Your task to perform on an android device: What is the news today? Image 0: 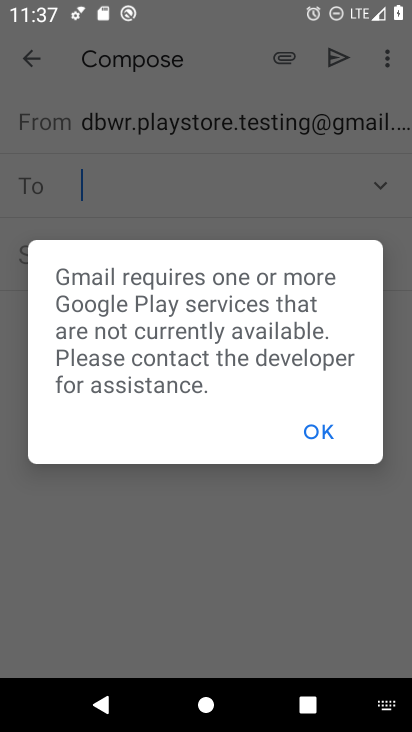
Step 0: drag from (205, 545) to (199, 171)
Your task to perform on an android device: What is the news today? Image 1: 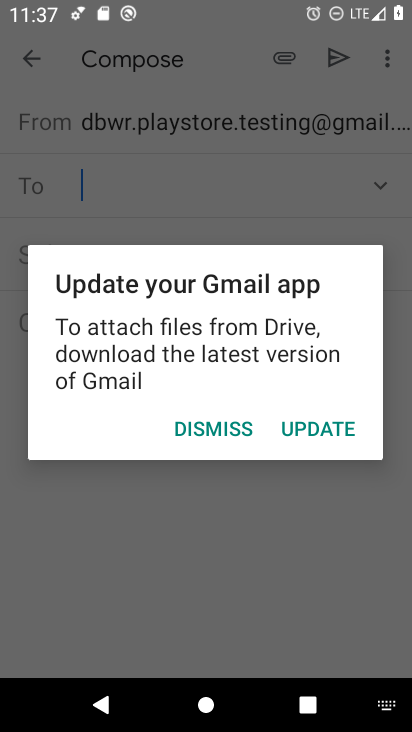
Step 1: press back button
Your task to perform on an android device: What is the news today? Image 2: 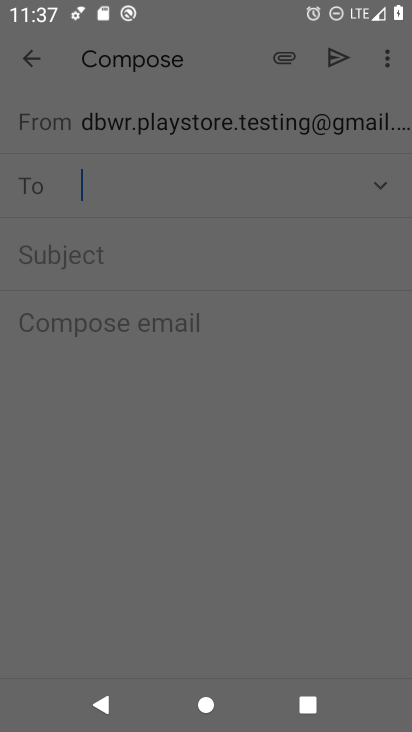
Step 2: press back button
Your task to perform on an android device: What is the news today? Image 3: 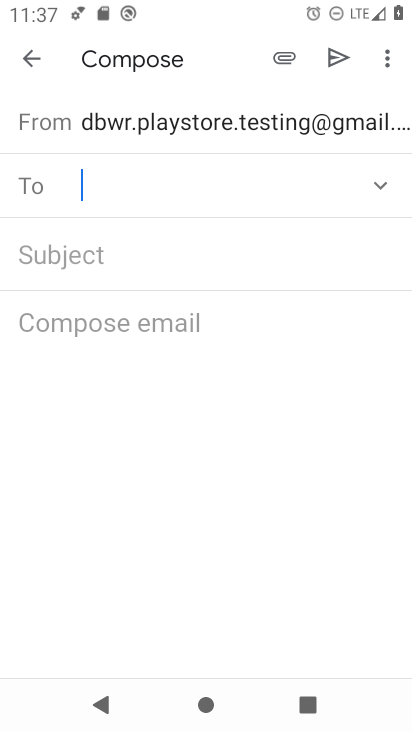
Step 3: press home button
Your task to perform on an android device: What is the news today? Image 4: 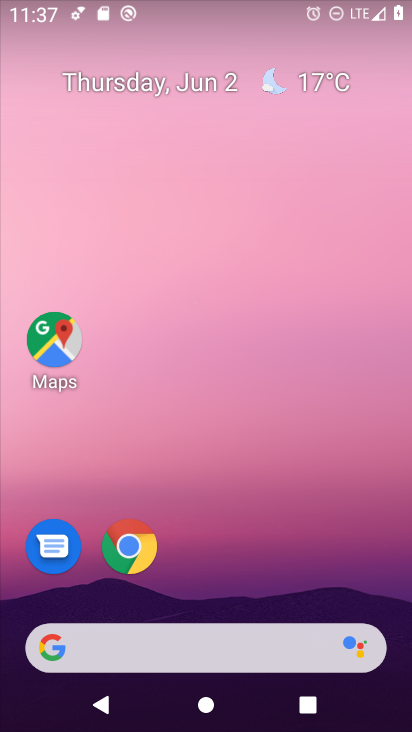
Step 4: drag from (239, 531) to (227, 34)
Your task to perform on an android device: What is the news today? Image 5: 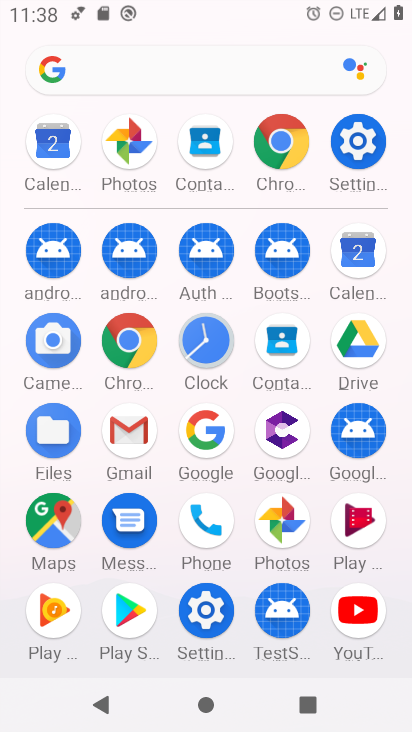
Step 5: click (132, 333)
Your task to perform on an android device: What is the news today? Image 6: 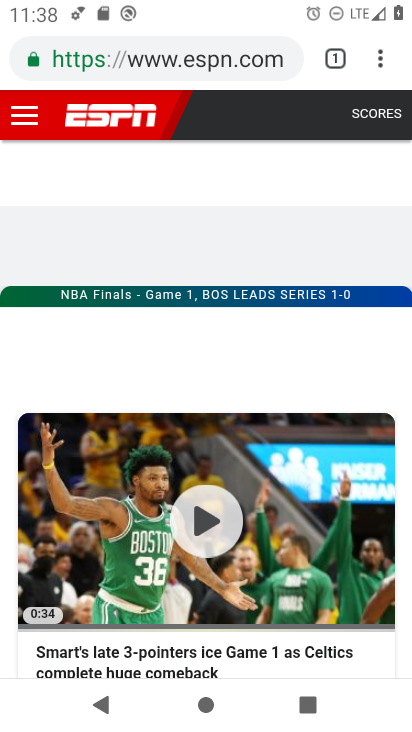
Step 6: click (190, 59)
Your task to perform on an android device: What is the news today? Image 7: 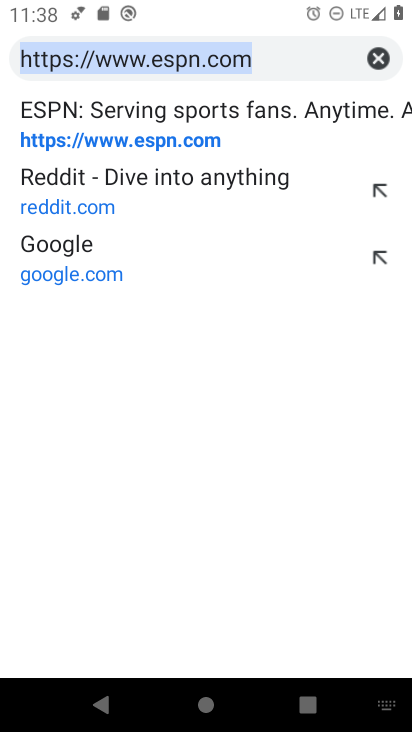
Step 7: click (372, 56)
Your task to perform on an android device: What is the news today? Image 8: 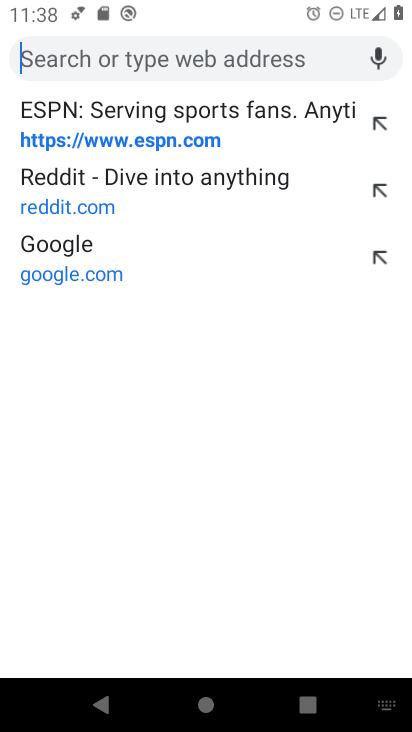
Step 8: type "What is the news today?"
Your task to perform on an android device: What is the news today? Image 9: 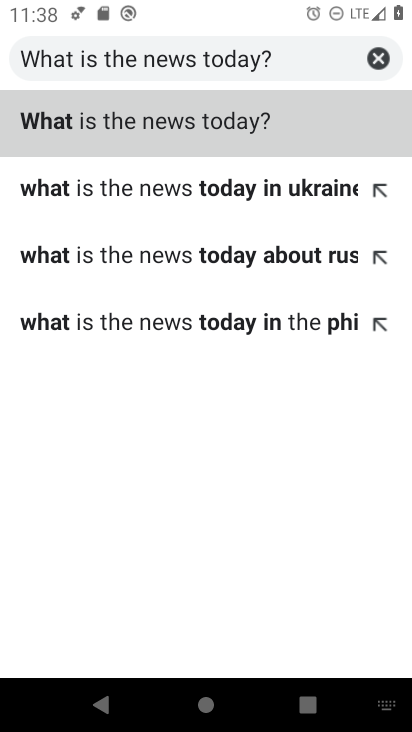
Step 9: click (138, 124)
Your task to perform on an android device: What is the news today? Image 10: 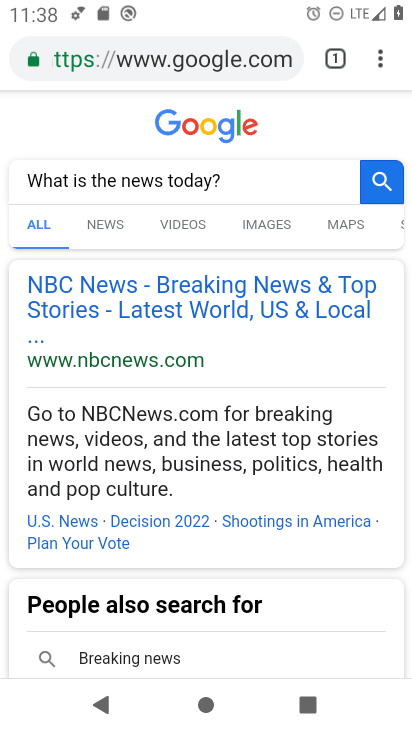
Step 10: click (115, 217)
Your task to perform on an android device: What is the news today? Image 11: 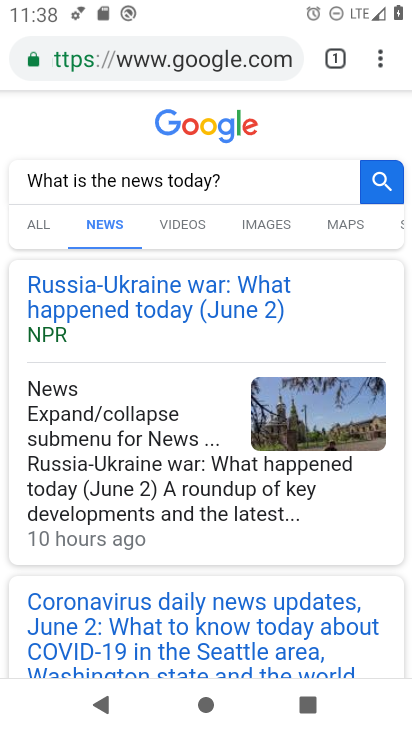
Step 11: task complete